Your task to perform on an android device: open app "ZOOM Cloud Meetings" Image 0: 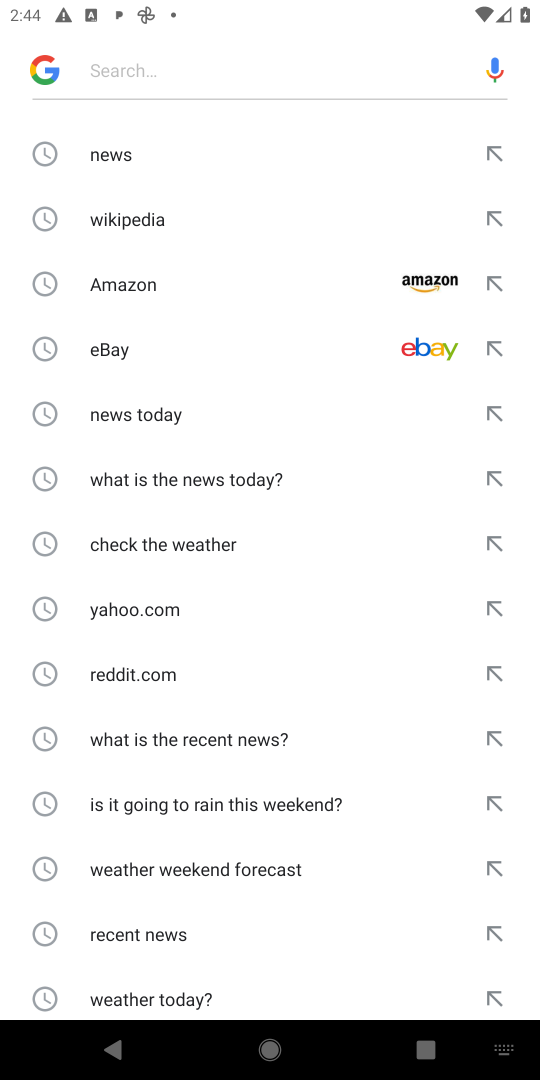
Step 0: press home button
Your task to perform on an android device: open app "ZOOM Cloud Meetings" Image 1: 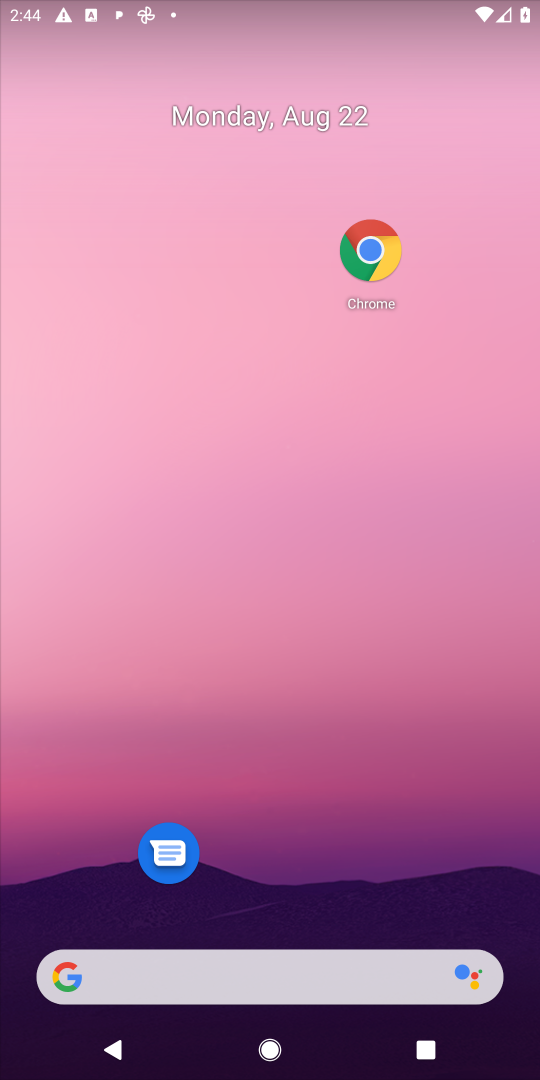
Step 1: drag from (275, 902) to (288, 521)
Your task to perform on an android device: open app "ZOOM Cloud Meetings" Image 2: 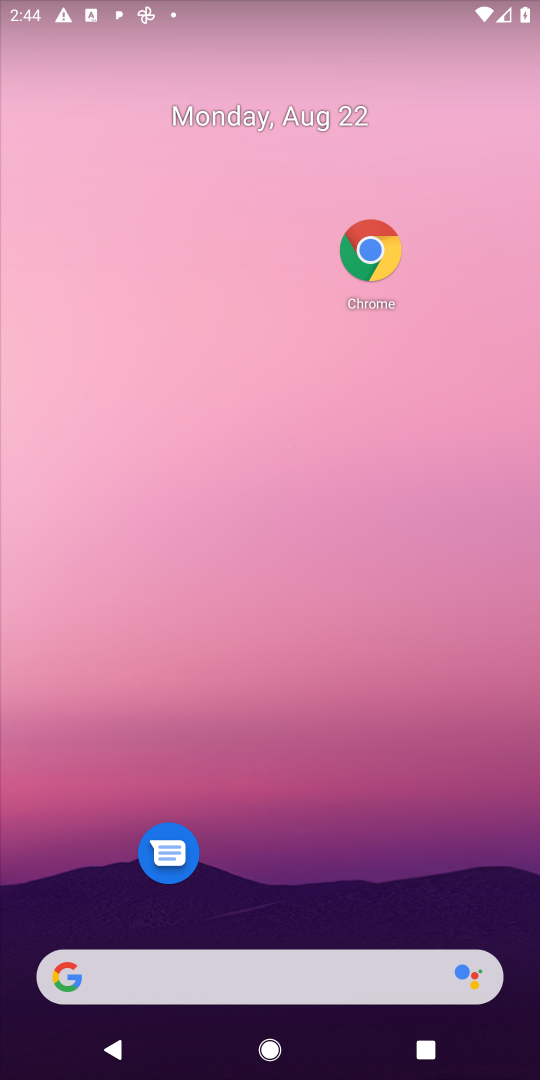
Step 2: drag from (278, 909) to (283, 576)
Your task to perform on an android device: open app "ZOOM Cloud Meetings" Image 3: 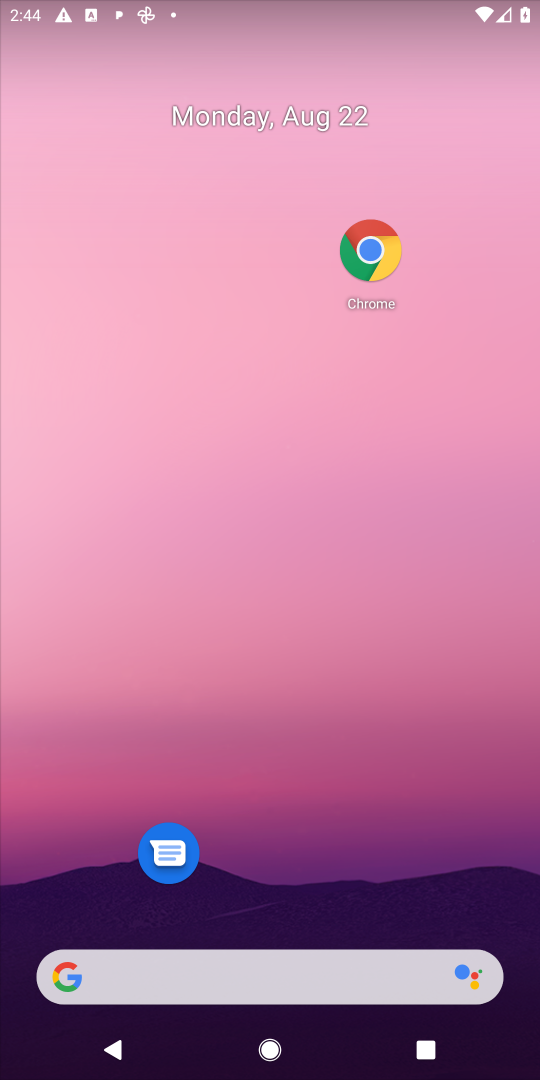
Step 3: drag from (240, 897) to (227, 410)
Your task to perform on an android device: open app "ZOOM Cloud Meetings" Image 4: 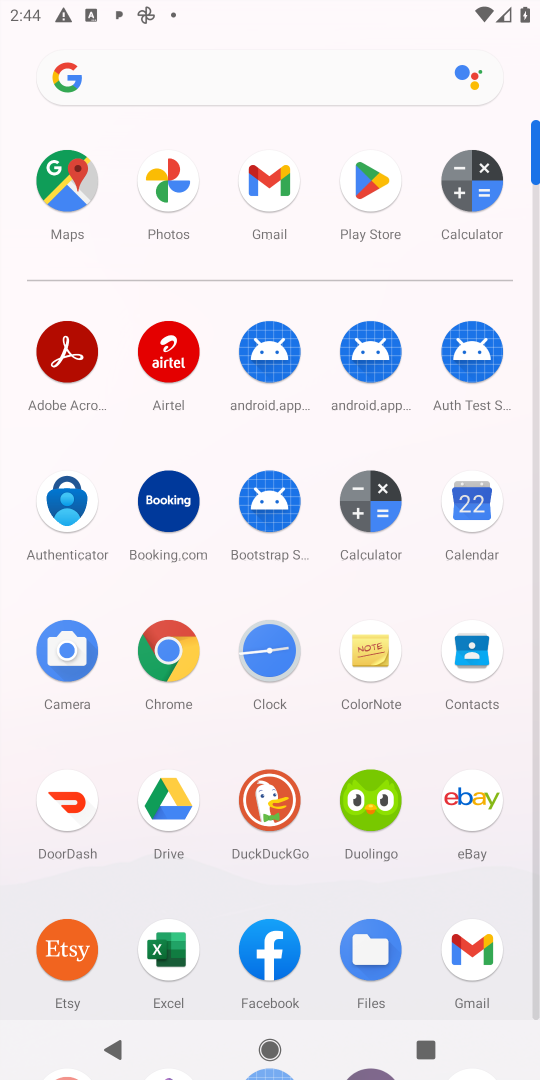
Step 4: click (376, 159)
Your task to perform on an android device: open app "ZOOM Cloud Meetings" Image 5: 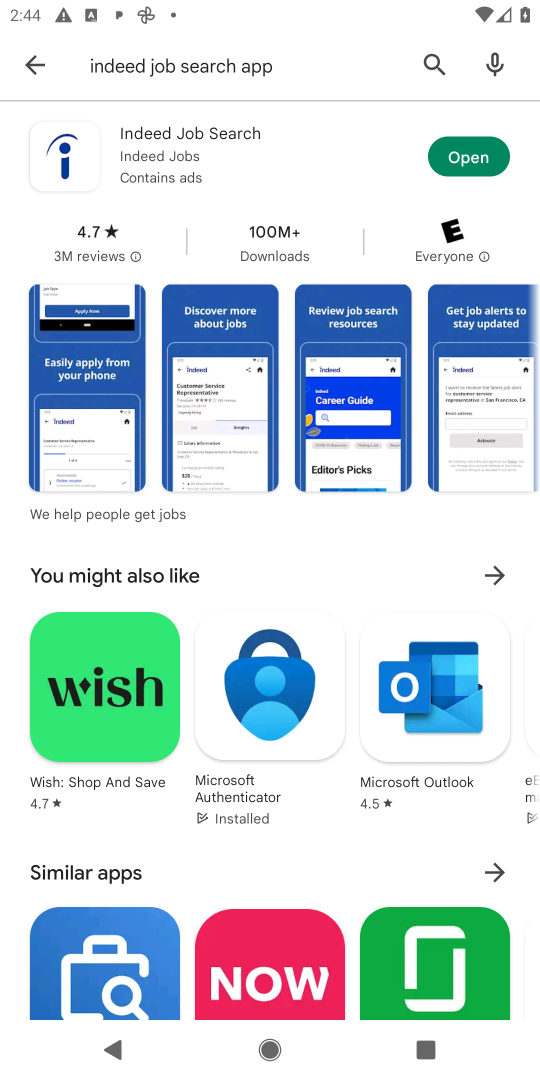
Step 5: click (34, 57)
Your task to perform on an android device: open app "ZOOM Cloud Meetings" Image 6: 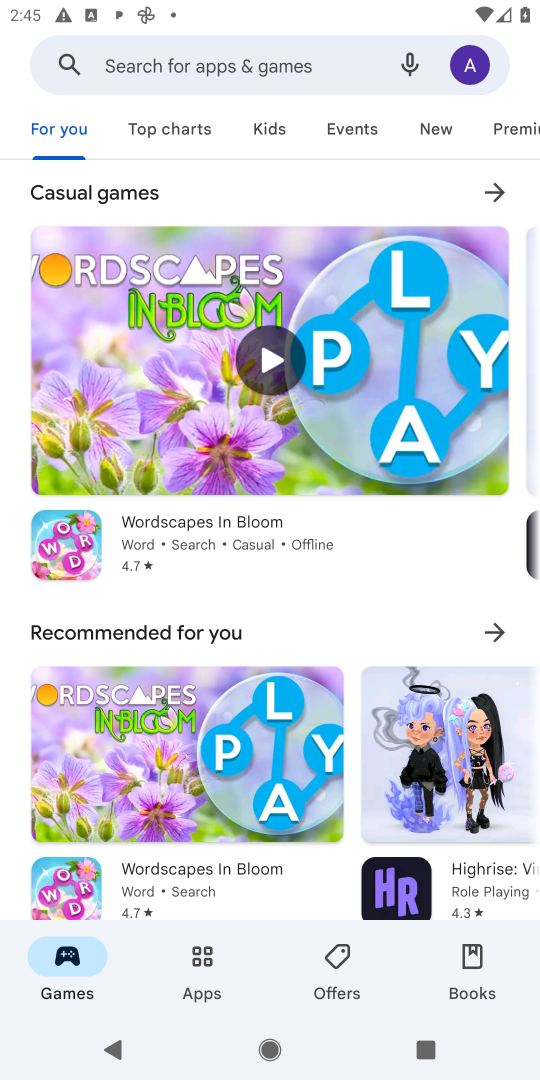
Step 6: click (280, 52)
Your task to perform on an android device: open app "ZOOM Cloud Meetings" Image 7: 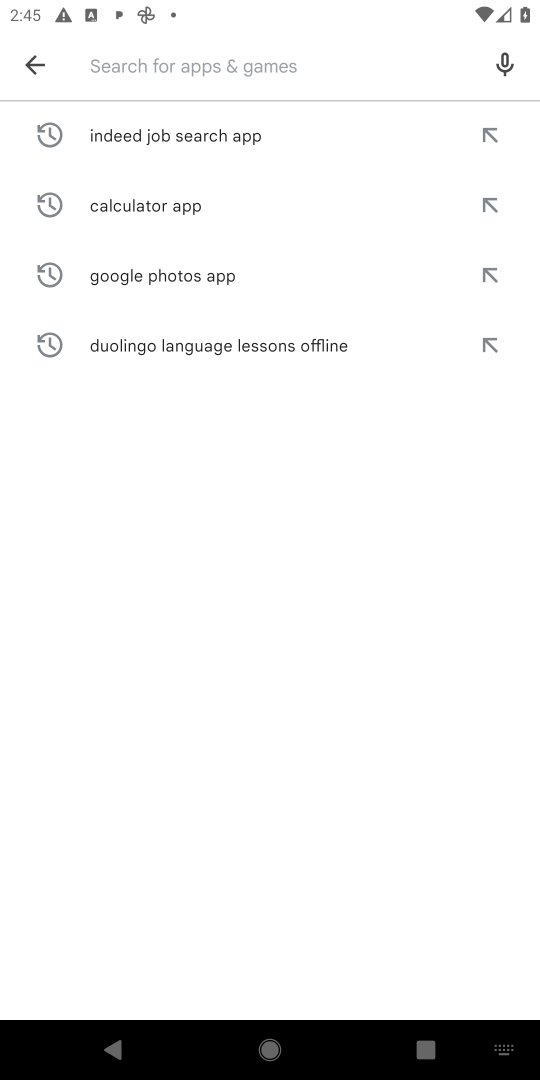
Step 7: type "ZOOM Cloud Meetings "
Your task to perform on an android device: open app "ZOOM Cloud Meetings" Image 8: 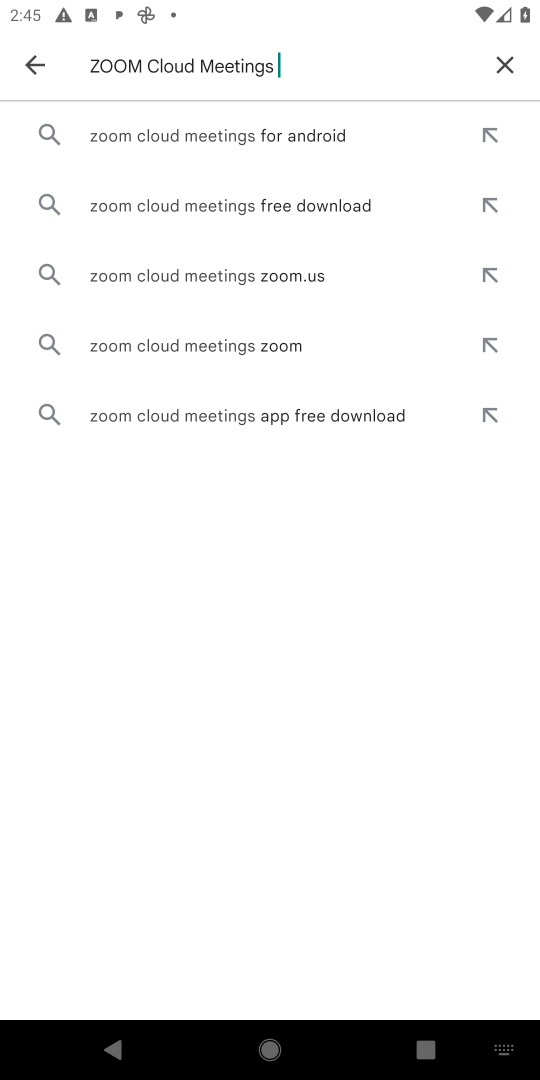
Step 8: click (369, 137)
Your task to perform on an android device: open app "ZOOM Cloud Meetings" Image 9: 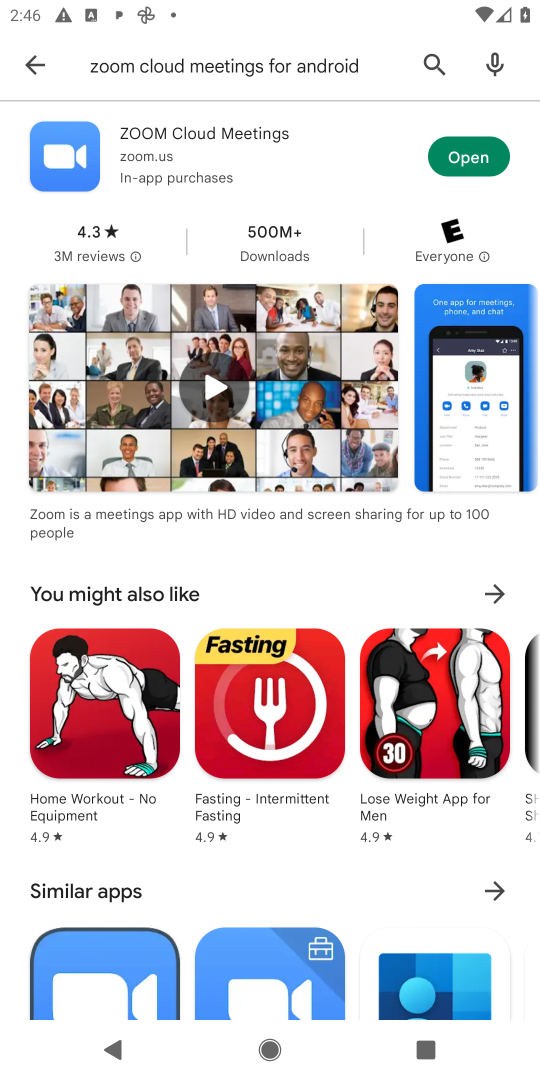
Step 9: click (479, 161)
Your task to perform on an android device: open app "ZOOM Cloud Meetings" Image 10: 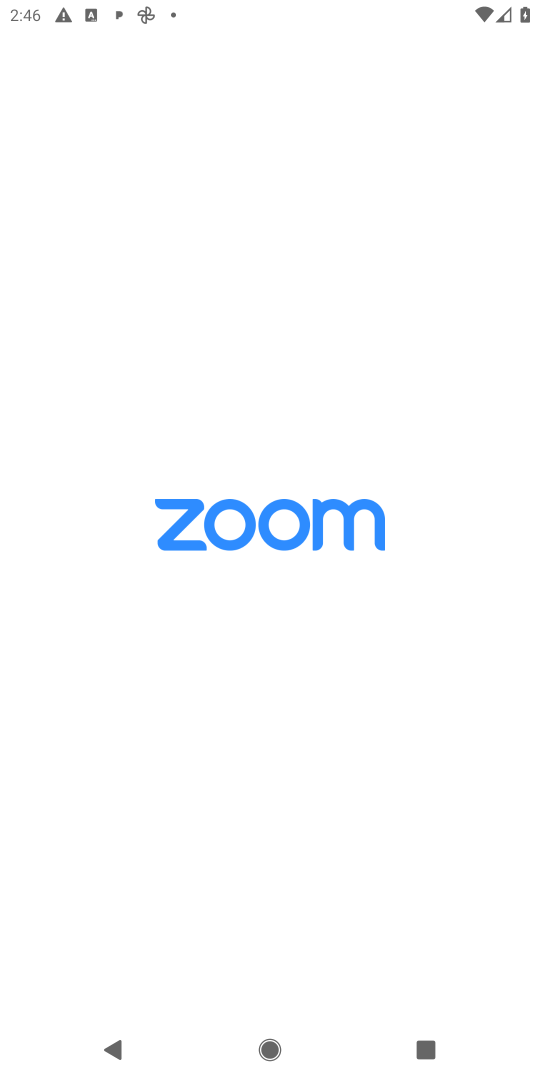
Step 10: task complete